Your task to perform on an android device: Is it going to rain today? Image 0: 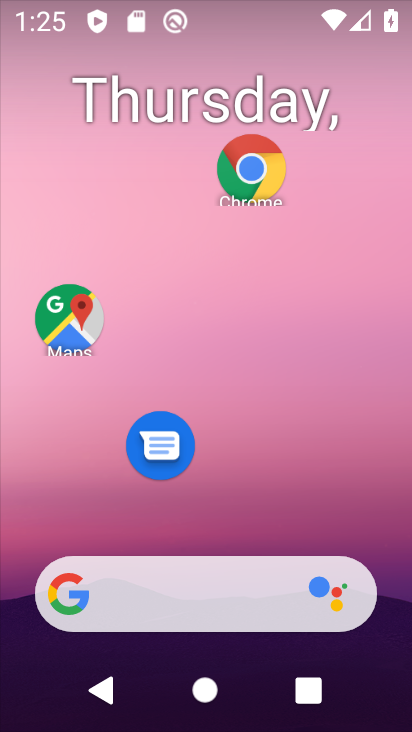
Step 0: drag from (268, 642) to (299, 195)
Your task to perform on an android device: Is it going to rain today? Image 1: 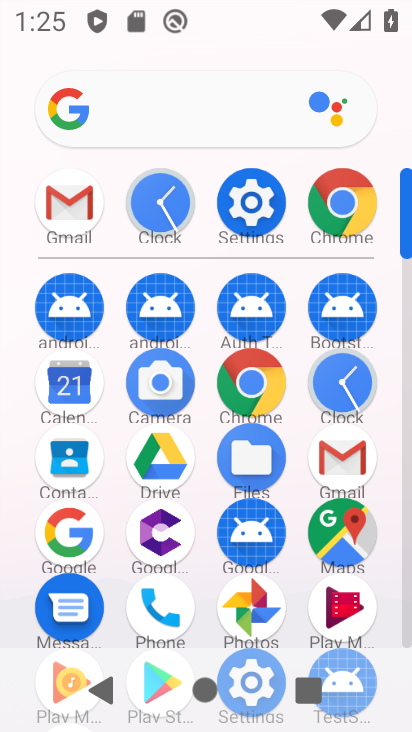
Step 1: click (182, 108)
Your task to perform on an android device: Is it going to rain today? Image 2: 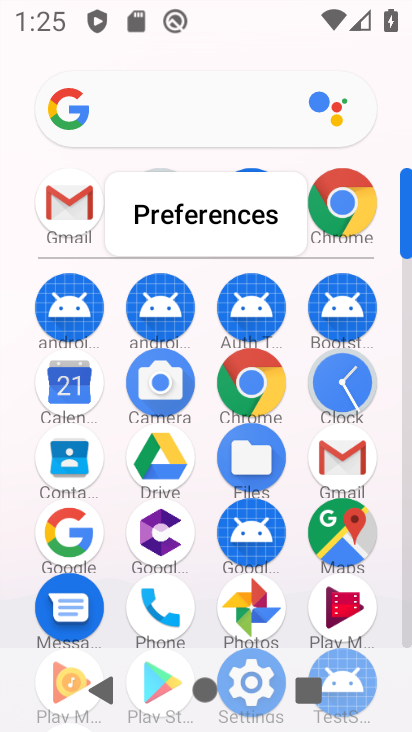
Step 2: click (182, 108)
Your task to perform on an android device: Is it going to rain today? Image 3: 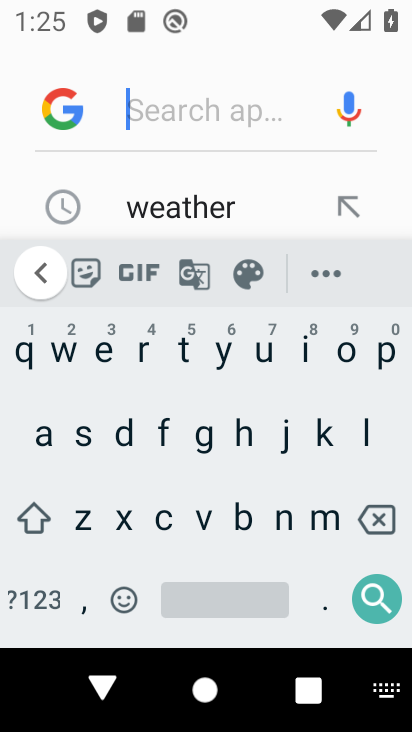
Step 3: click (173, 193)
Your task to perform on an android device: Is it going to rain today? Image 4: 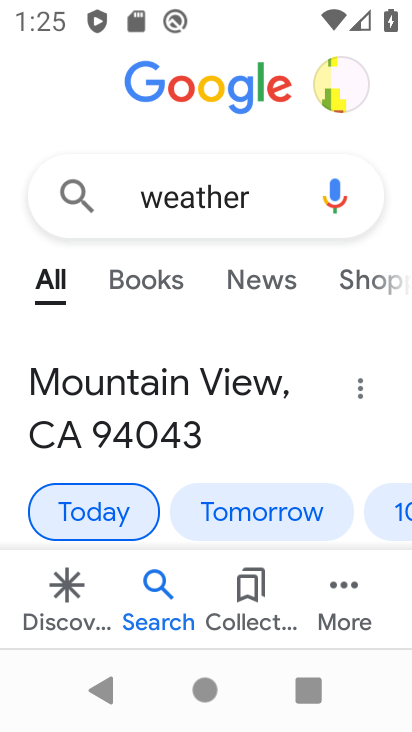
Step 4: task complete